Your task to perform on an android device: turn off smart reply in the gmail app Image 0: 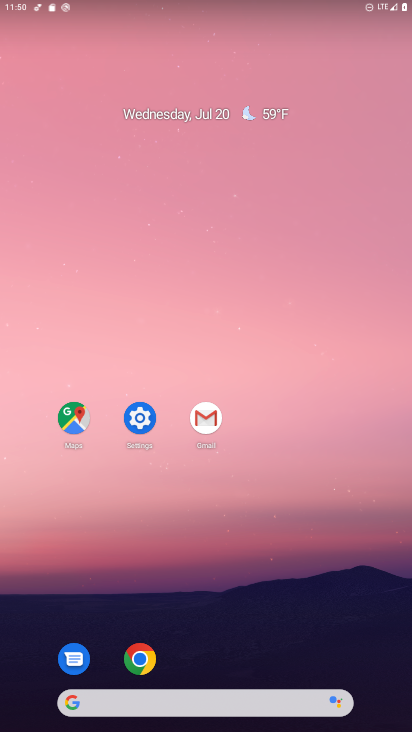
Step 0: click (207, 414)
Your task to perform on an android device: turn off smart reply in the gmail app Image 1: 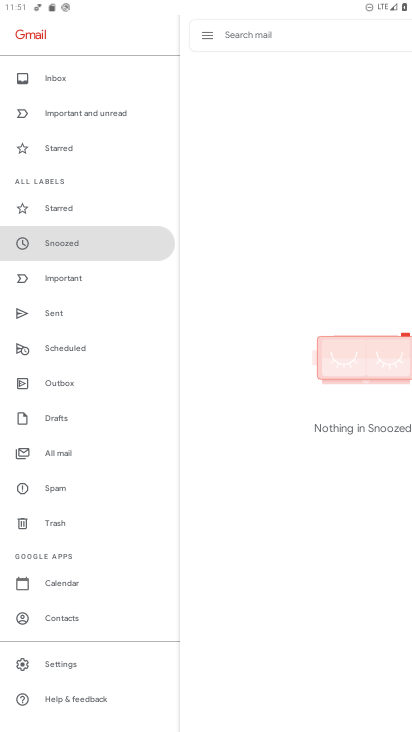
Step 1: click (44, 650)
Your task to perform on an android device: turn off smart reply in the gmail app Image 2: 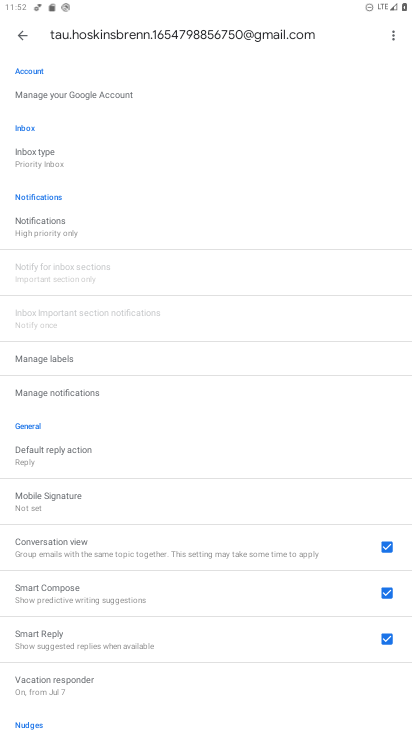
Step 2: click (63, 640)
Your task to perform on an android device: turn off smart reply in the gmail app Image 3: 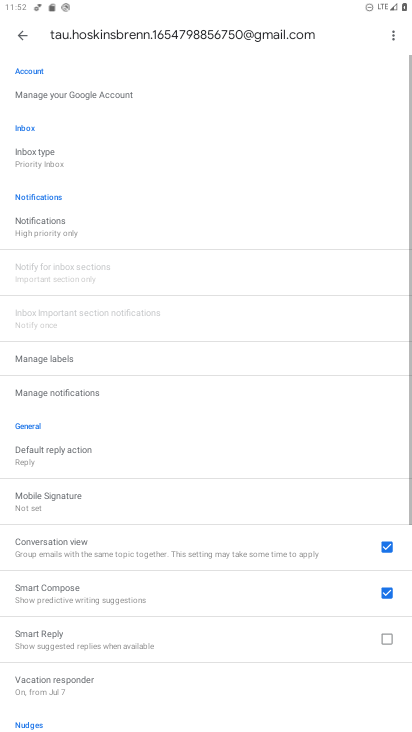
Step 3: task complete